Your task to perform on an android device: Open Google Chrome Image 0: 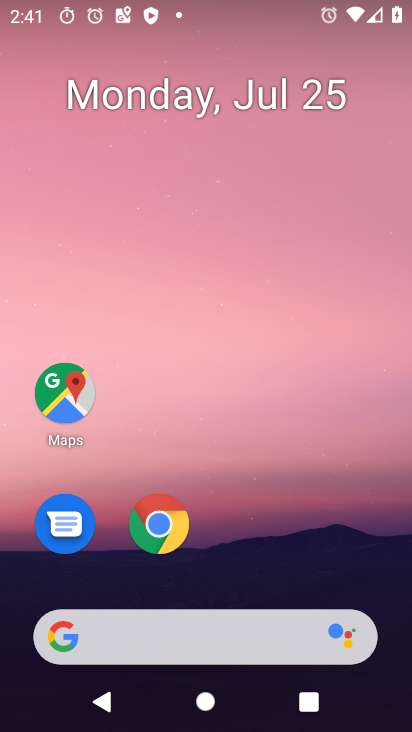
Step 0: press home button
Your task to perform on an android device: Open Google Chrome Image 1: 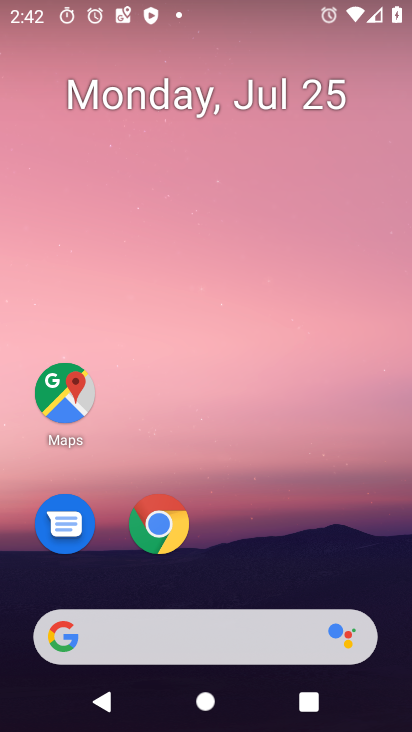
Step 1: drag from (269, 529) to (331, 91)
Your task to perform on an android device: Open Google Chrome Image 2: 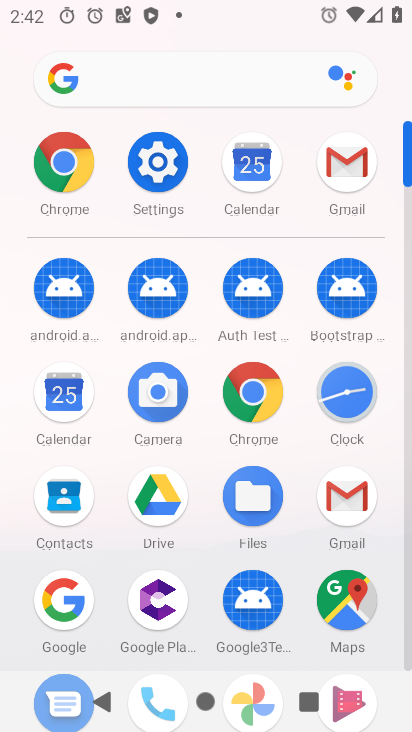
Step 2: click (67, 168)
Your task to perform on an android device: Open Google Chrome Image 3: 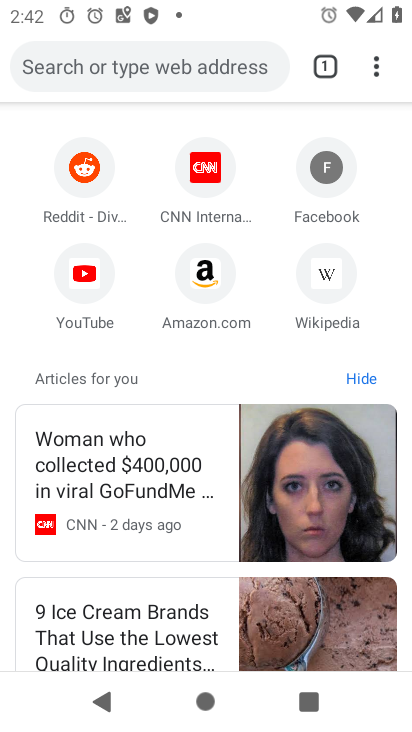
Step 3: task complete